Your task to perform on an android device: Open the calendar and show me this week's events? Image 0: 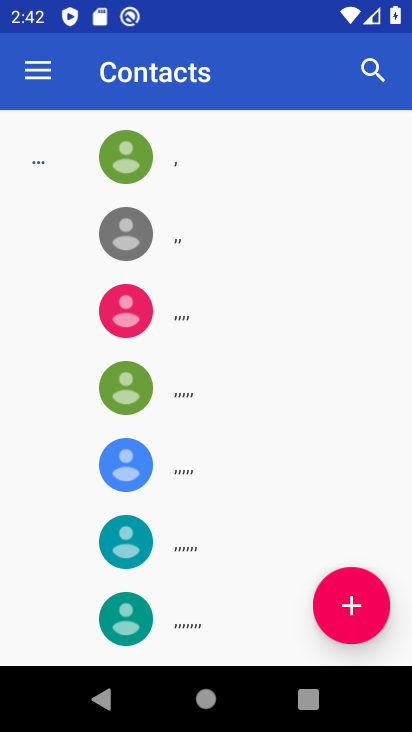
Step 0: press home button
Your task to perform on an android device: Open the calendar and show me this week's events? Image 1: 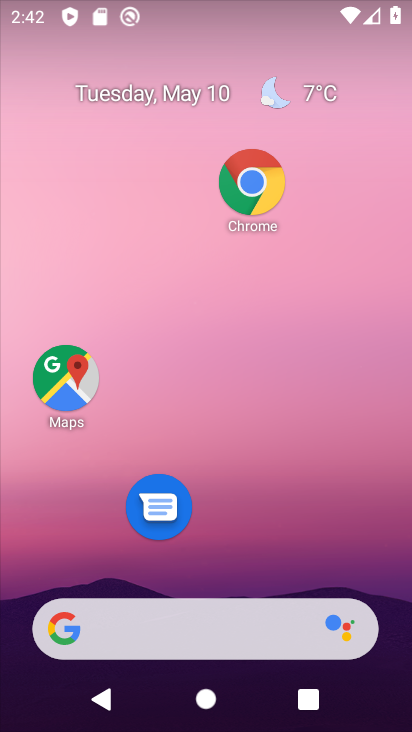
Step 1: drag from (315, 564) to (299, 179)
Your task to perform on an android device: Open the calendar and show me this week's events? Image 2: 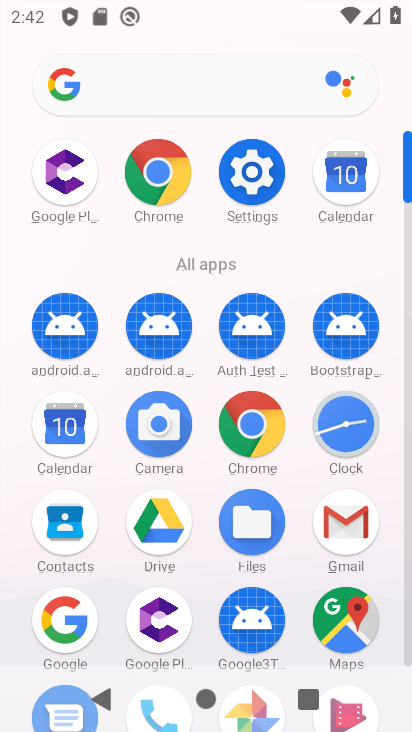
Step 2: click (77, 419)
Your task to perform on an android device: Open the calendar and show me this week's events? Image 3: 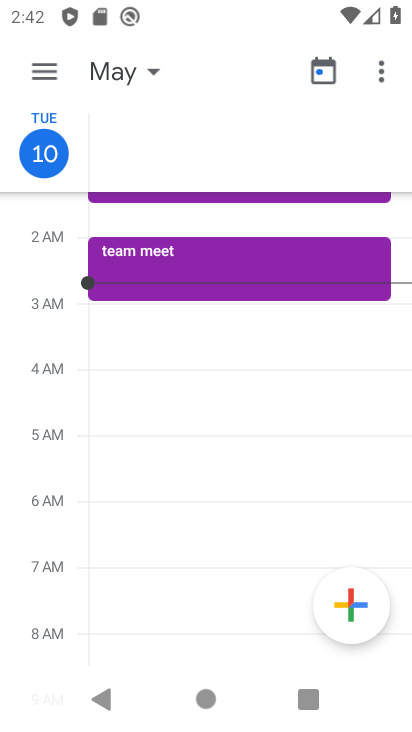
Step 3: click (55, 88)
Your task to perform on an android device: Open the calendar and show me this week's events? Image 4: 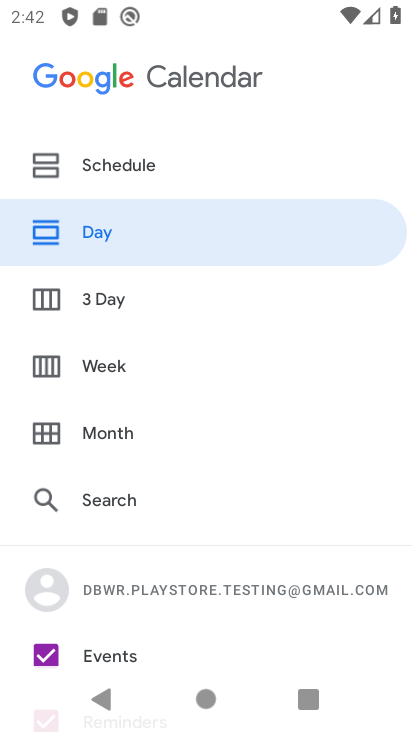
Step 4: click (128, 371)
Your task to perform on an android device: Open the calendar and show me this week's events? Image 5: 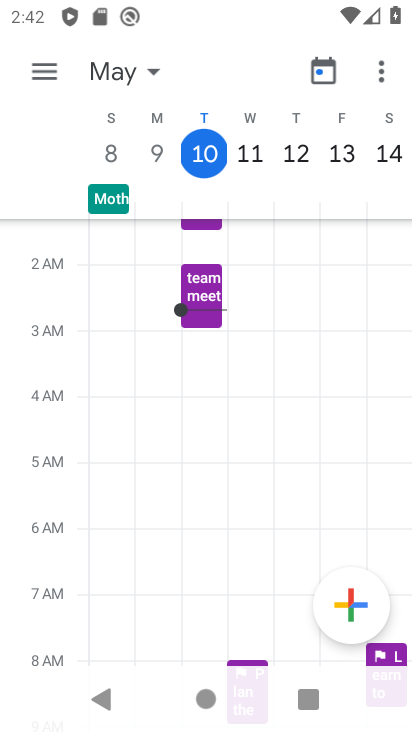
Step 5: task complete